Your task to perform on an android device: open sync settings in chrome Image 0: 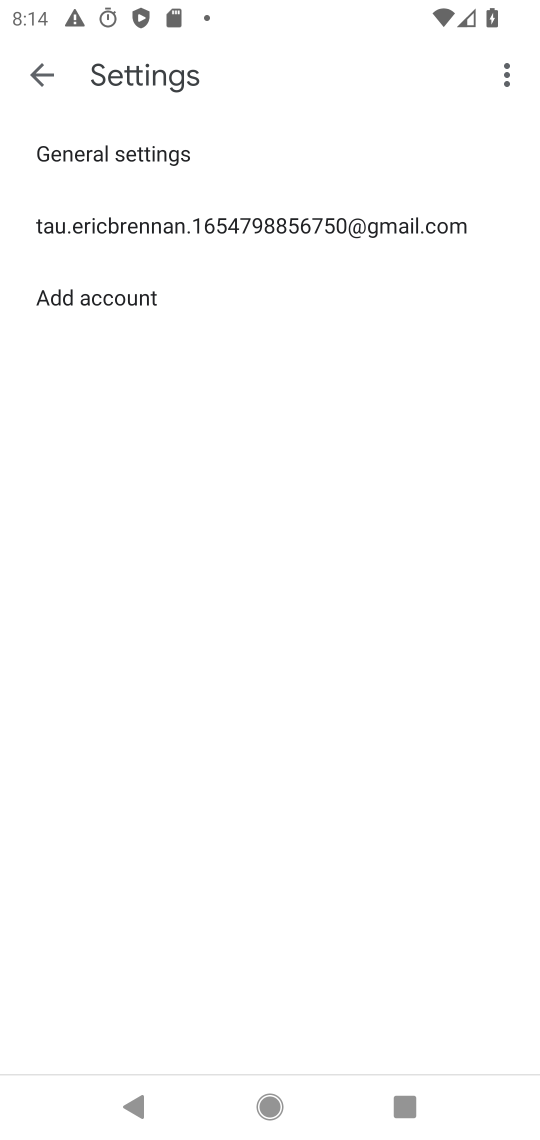
Step 0: press home button
Your task to perform on an android device: open sync settings in chrome Image 1: 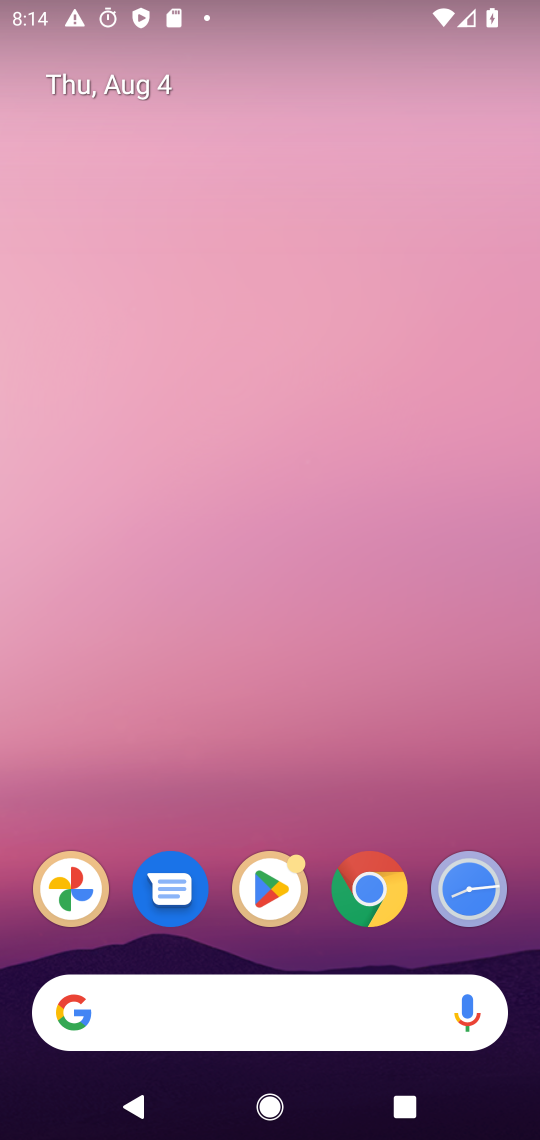
Step 1: click (369, 897)
Your task to perform on an android device: open sync settings in chrome Image 2: 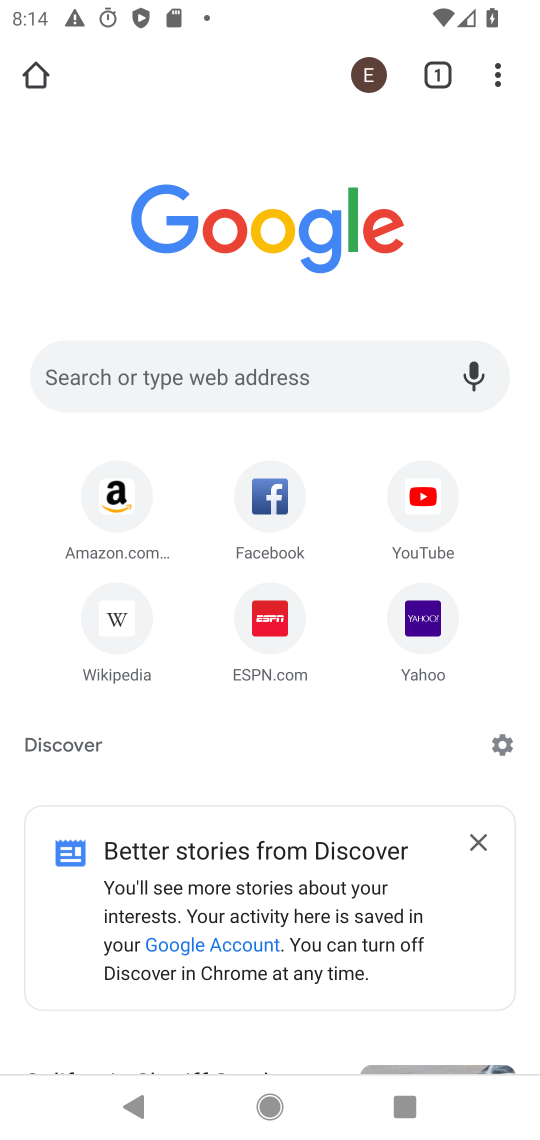
Step 2: click (208, 385)
Your task to perform on an android device: open sync settings in chrome Image 3: 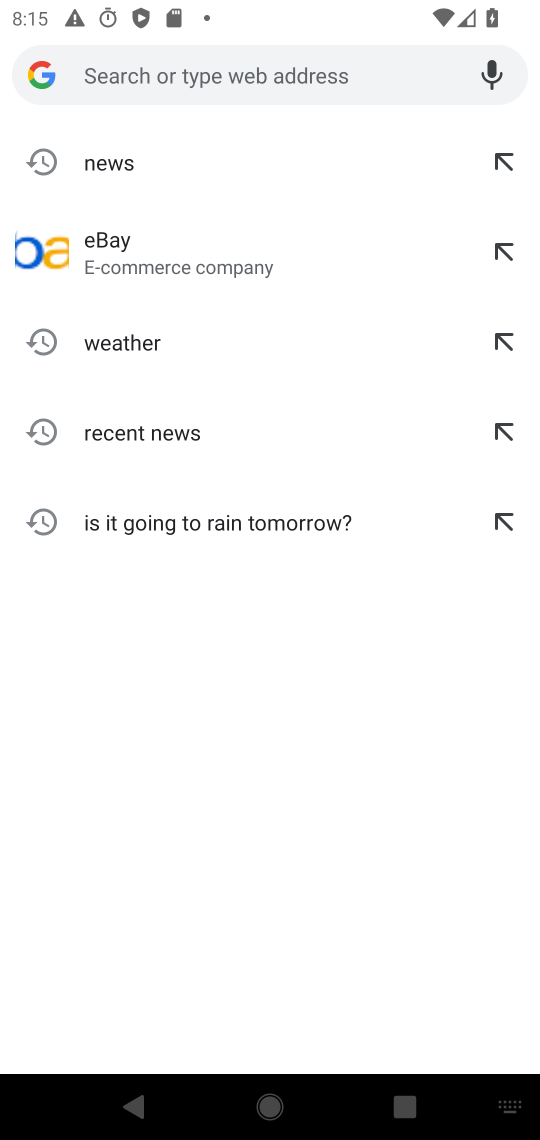
Step 3: press back button
Your task to perform on an android device: open sync settings in chrome Image 4: 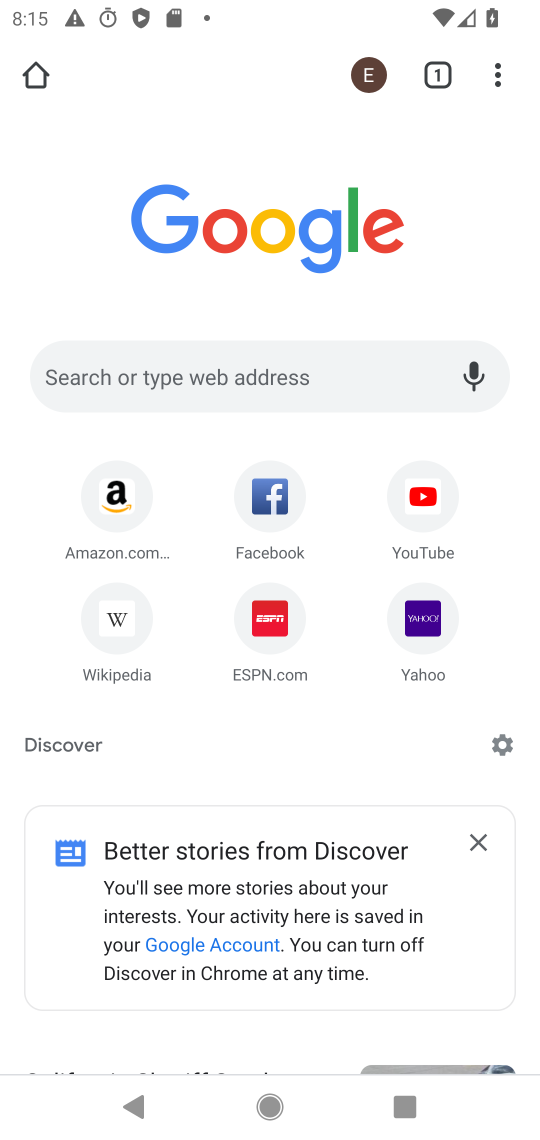
Step 4: click (497, 72)
Your task to perform on an android device: open sync settings in chrome Image 5: 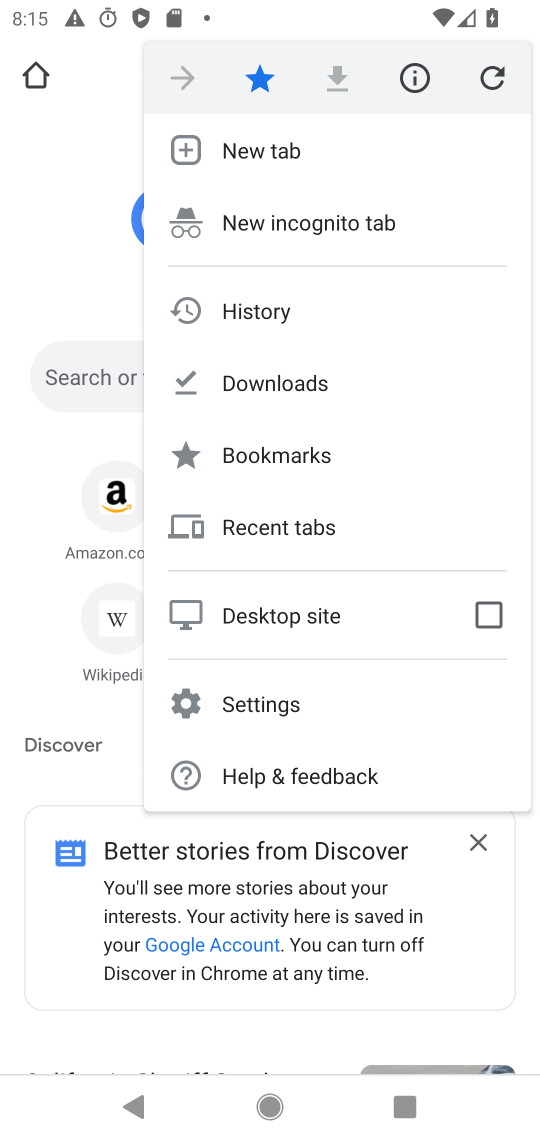
Step 5: click (240, 702)
Your task to perform on an android device: open sync settings in chrome Image 6: 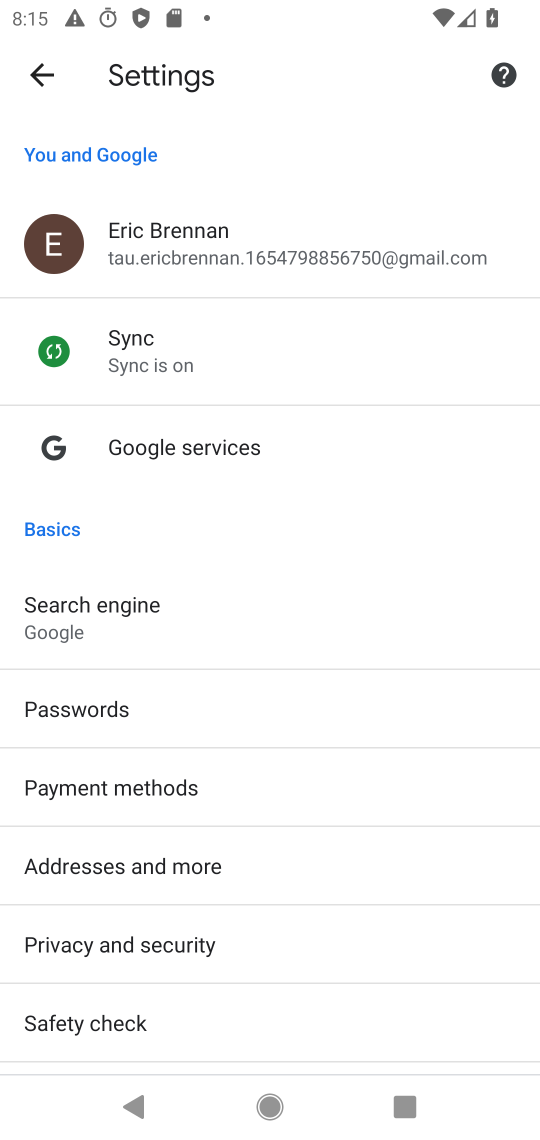
Step 6: click (115, 356)
Your task to perform on an android device: open sync settings in chrome Image 7: 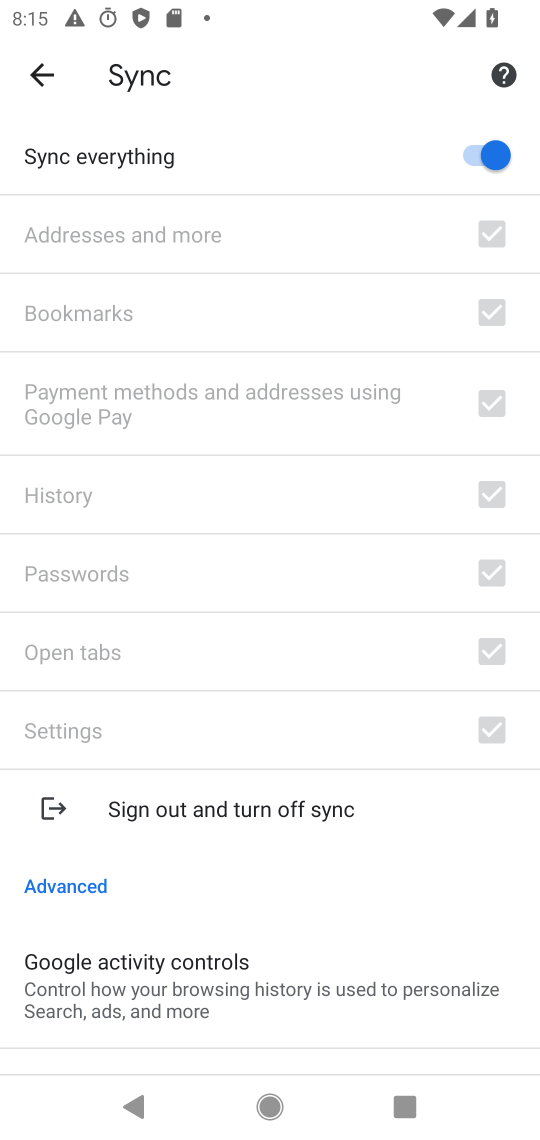
Step 7: task complete